Your task to perform on an android device: empty trash in the gmail app Image 0: 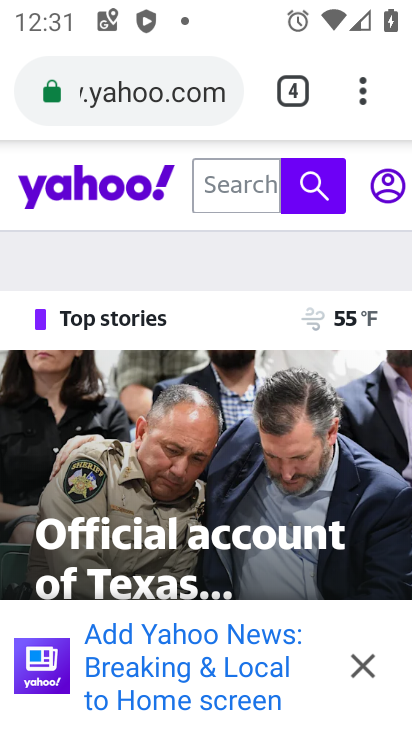
Step 0: press home button
Your task to perform on an android device: empty trash in the gmail app Image 1: 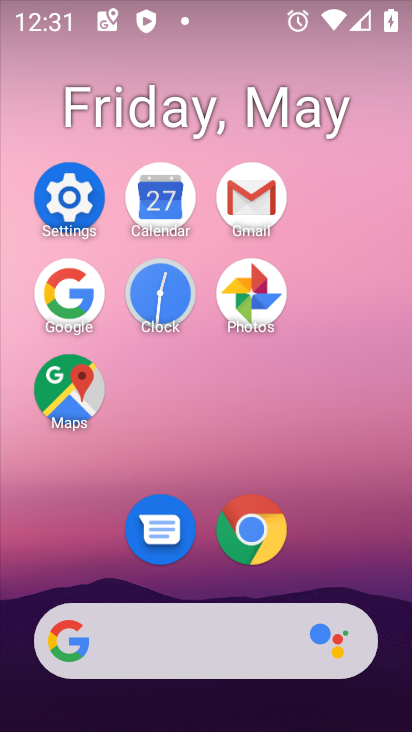
Step 1: click (274, 197)
Your task to perform on an android device: empty trash in the gmail app Image 2: 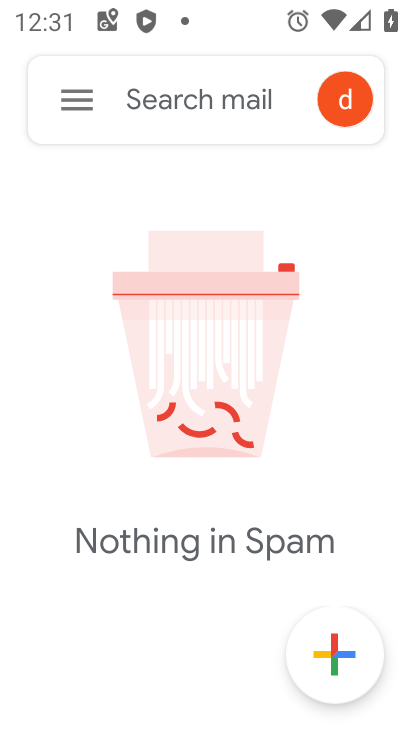
Step 2: click (66, 107)
Your task to perform on an android device: empty trash in the gmail app Image 3: 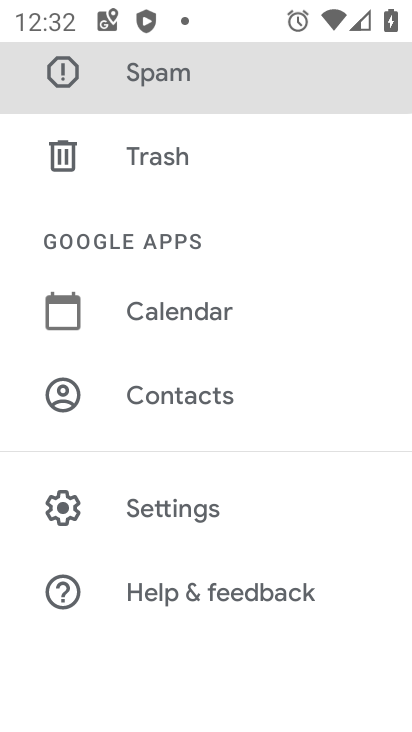
Step 3: click (236, 82)
Your task to perform on an android device: empty trash in the gmail app Image 4: 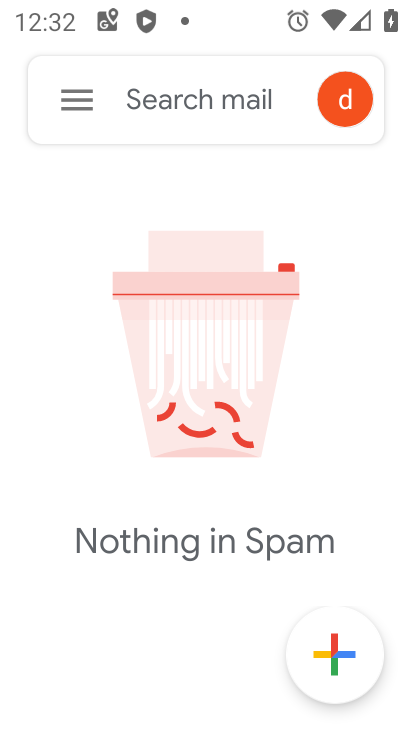
Step 4: click (46, 97)
Your task to perform on an android device: empty trash in the gmail app Image 5: 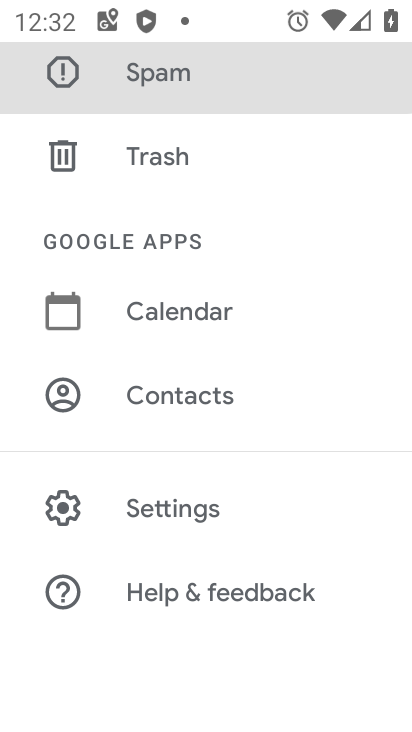
Step 5: click (168, 147)
Your task to perform on an android device: empty trash in the gmail app Image 6: 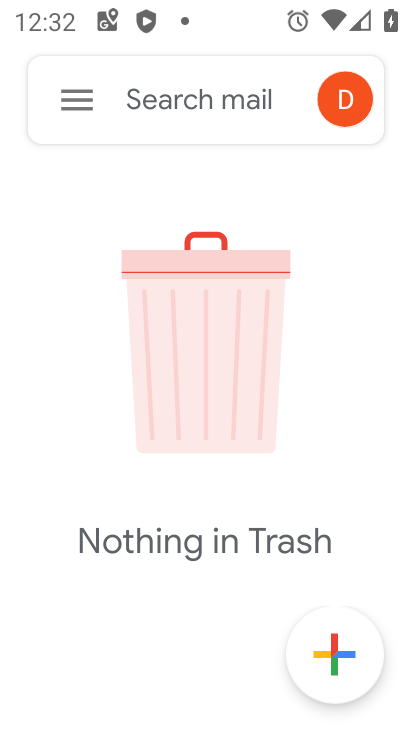
Step 6: task complete